Your task to perform on an android device: Open Yahoo.com Image 0: 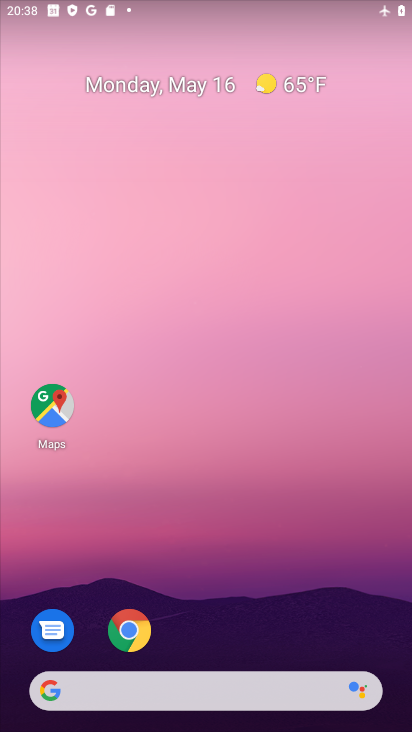
Step 0: click (116, 632)
Your task to perform on an android device: Open Yahoo.com Image 1: 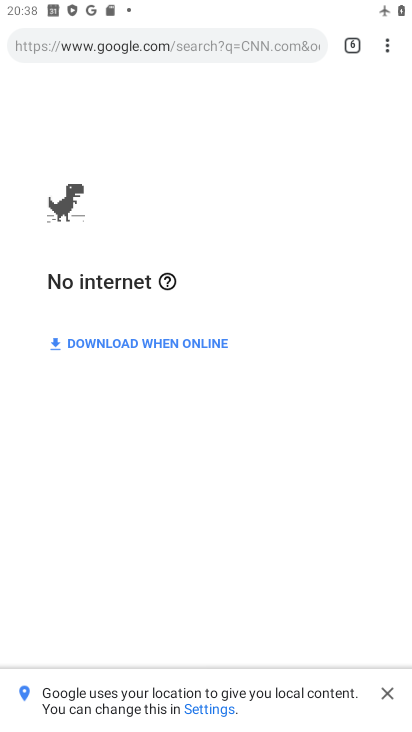
Step 1: click (352, 37)
Your task to perform on an android device: Open Yahoo.com Image 2: 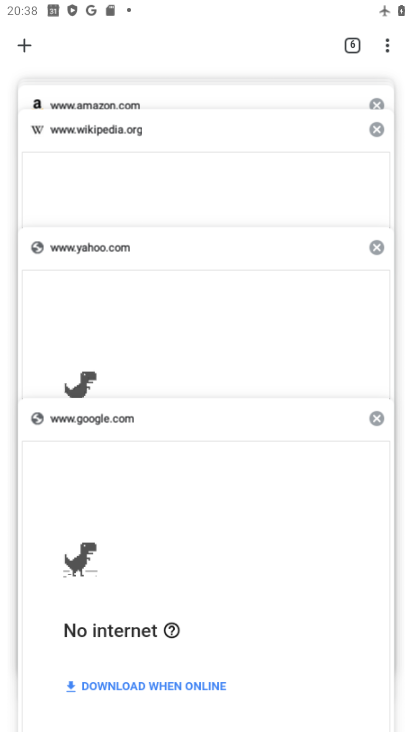
Step 2: click (16, 41)
Your task to perform on an android device: Open Yahoo.com Image 3: 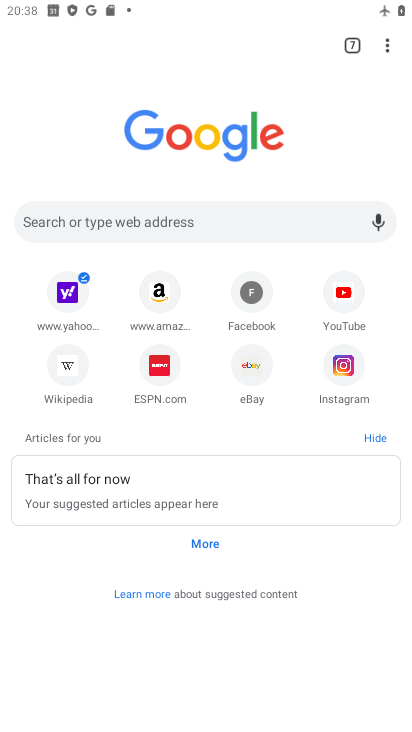
Step 3: click (66, 310)
Your task to perform on an android device: Open Yahoo.com Image 4: 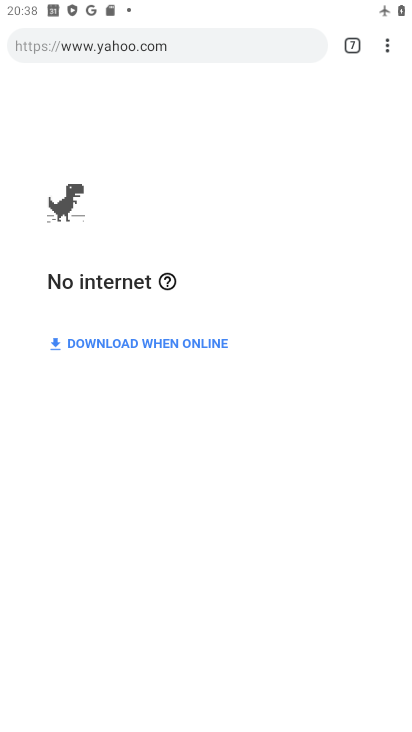
Step 4: task complete